Your task to perform on an android device: open app "DoorDash - Food Delivery" (install if not already installed) Image 0: 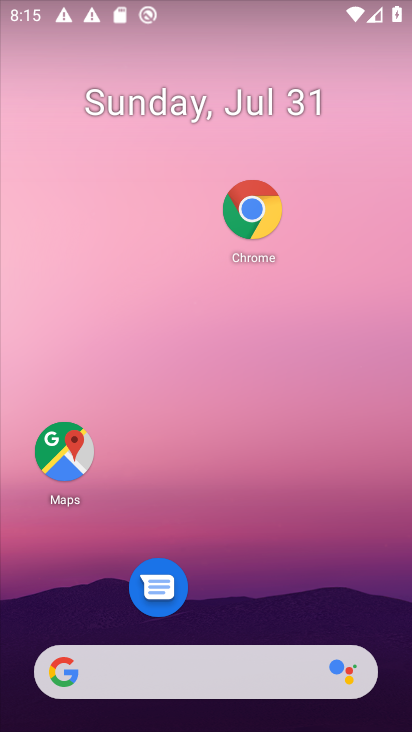
Step 0: drag from (274, 638) to (217, 238)
Your task to perform on an android device: open app "DoorDash - Food Delivery" (install if not already installed) Image 1: 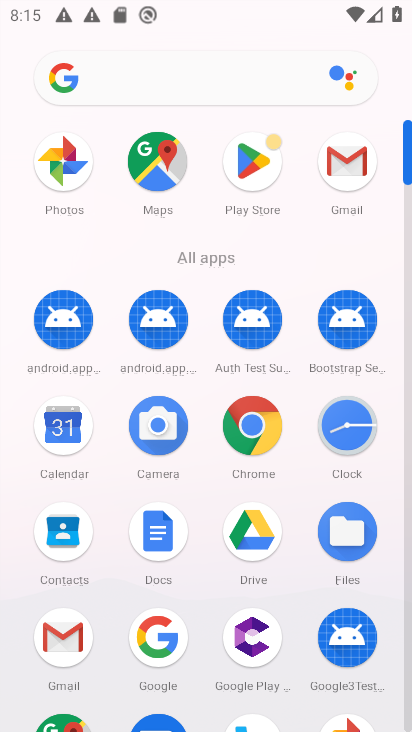
Step 1: drag from (211, 490) to (141, 27)
Your task to perform on an android device: open app "DoorDash - Food Delivery" (install if not already installed) Image 2: 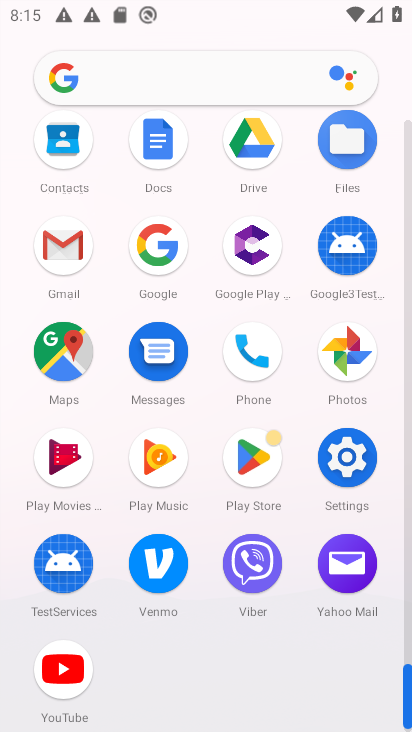
Step 2: click (235, 457)
Your task to perform on an android device: open app "DoorDash - Food Delivery" (install if not already installed) Image 3: 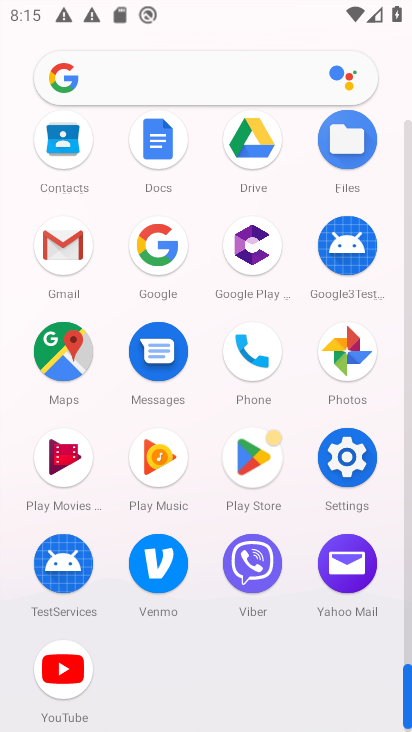
Step 3: click (246, 453)
Your task to perform on an android device: open app "DoorDash - Food Delivery" (install if not already installed) Image 4: 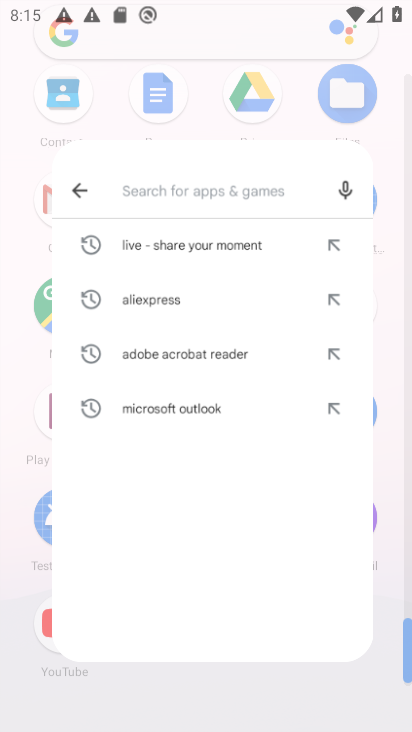
Step 4: click (246, 453)
Your task to perform on an android device: open app "DoorDash - Food Delivery" (install if not already installed) Image 5: 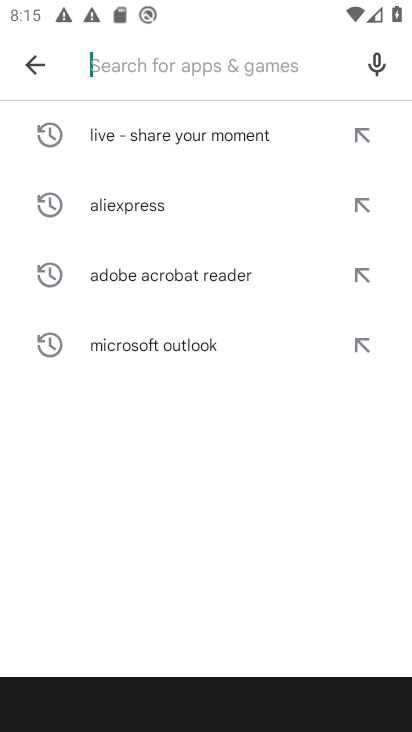
Step 5: click (259, 452)
Your task to perform on an android device: open app "DoorDash - Food Delivery" (install if not already installed) Image 6: 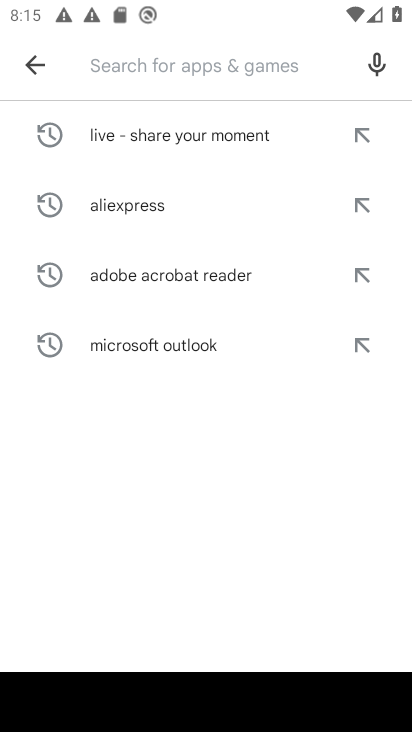
Step 6: type "Doordash -food delivery"
Your task to perform on an android device: open app "DoorDash - Food Delivery" (install if not already installed) Image 7: 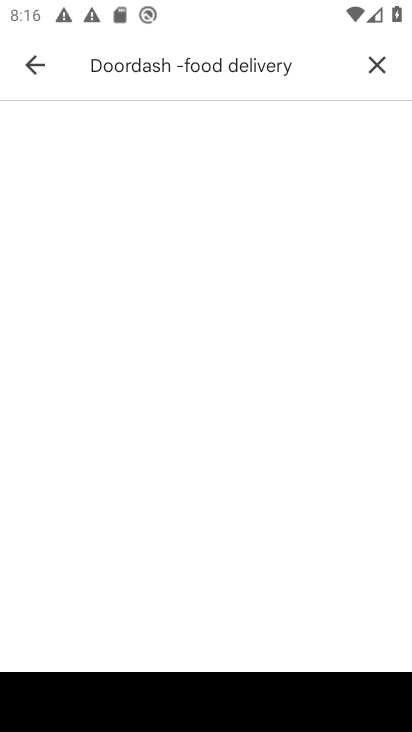
Step 7: click (291, 57)
Your task to perform on an android device: open app "DoorDash - Food Delivery" (install if not already installed) Image 8: 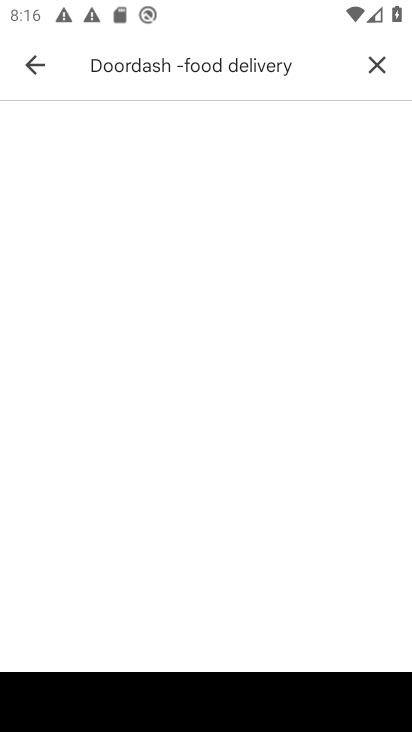
Step 8: click (254, 69)
Your task to perform on an android device: open app "DoorDash - Food Delivery" (install if not already installed) Image 9: 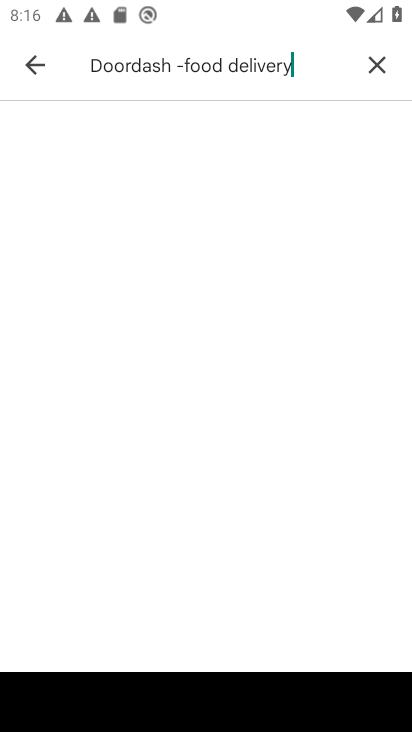
Step 9: click (269, 69)
Your task to perform on an android device: open app "DoorDash - Food Delivery" (install if not already installed) Image 10: 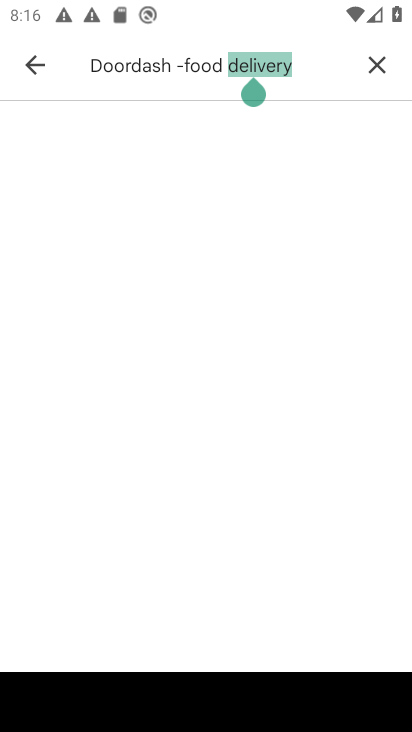
Step 10: click (270, 69)
Your task to perform on an android device: open app "DoorDash - Food Delivery" (install if not already installed) Image 11: 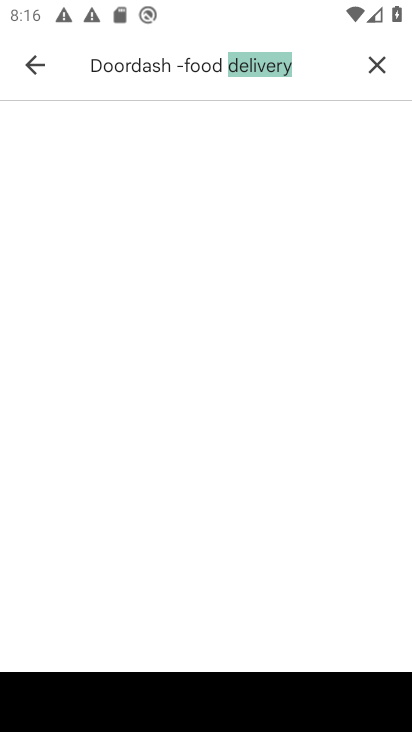
Step 11: click (270, 65)
Your task to perform on an android device: open app "DoorDash - Food Delivery" (install if not already installed) Image 12: 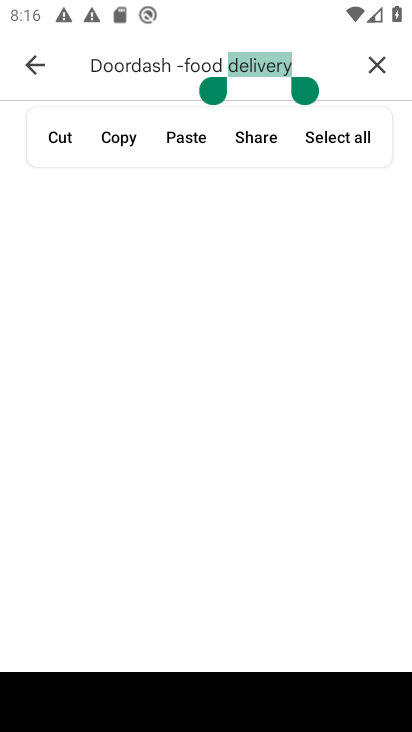
Step 12: click (312, 75)
Your task to perform on an android device: open app "DoorDash - Food Delivery" (install if not already installed) Image 13: 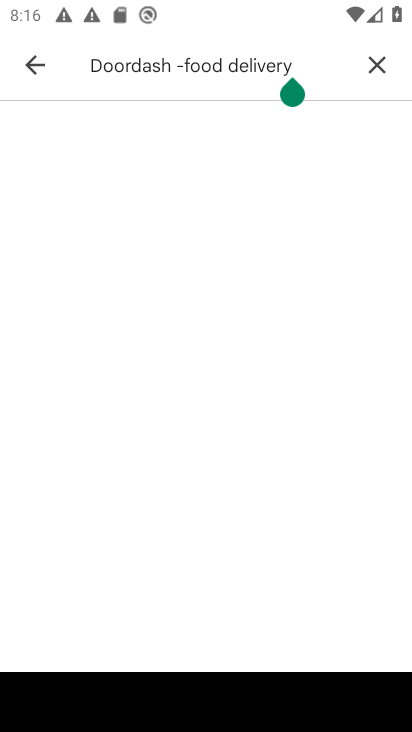
Step 13: click (302, 63)
Your task to perform on an android device: open app "DoorDash - Food Delivery" (install if not already installed) Image 14: 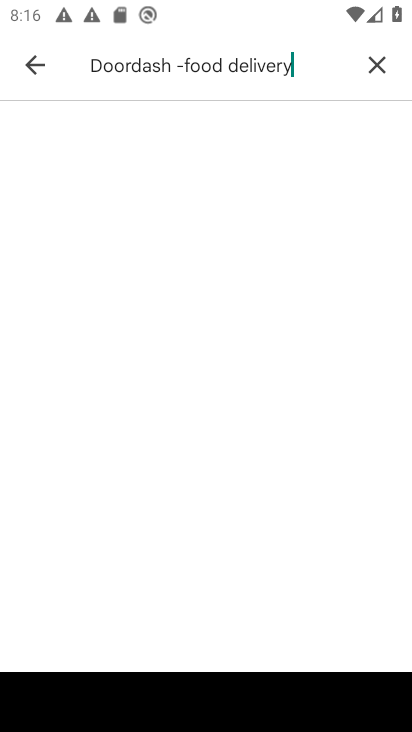
Step 14: type "DoorDash - Food Delivery" "
Your task to perform on an android device: open app "DoorDash - Food Delivery" (install if not already installed) Image 15: 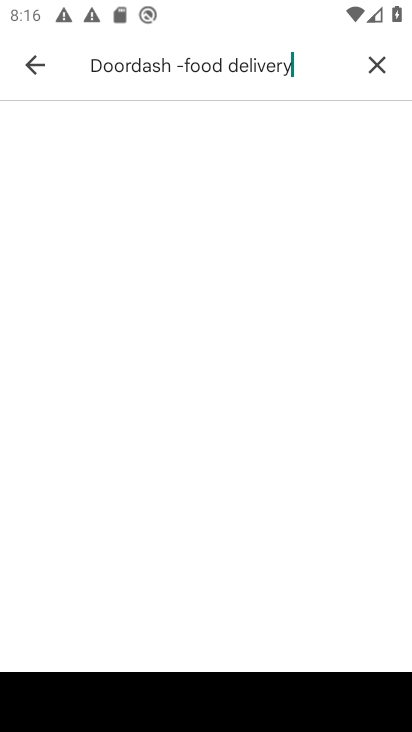
Step 15: click (373, 62)
Your task to perform on an android device: open app "DoorDash - Food Delivery" (install if not already installed) Image 16: 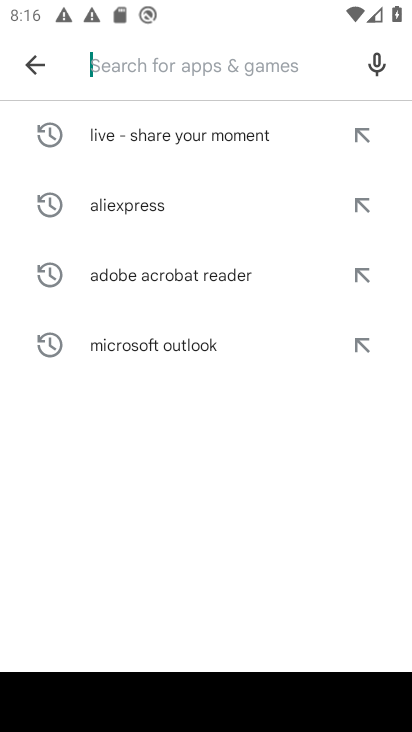
Step 16: type "doordash - food deliv ery"
Your task to perform on an android device: open app "DoorDash - Food Delivery" (install if not already installed) Image 17: 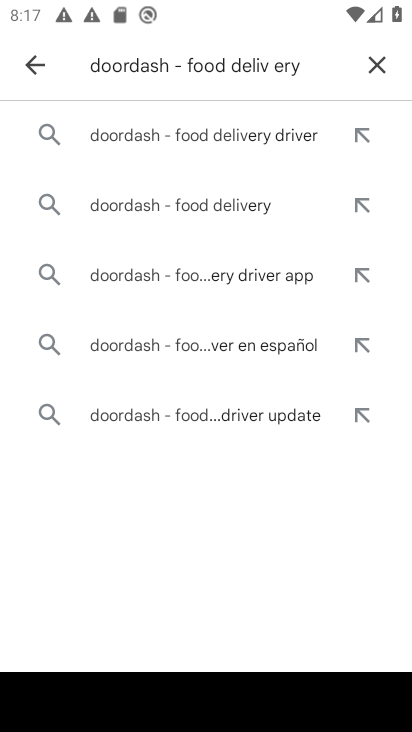
Step 17: click (261, 137)
Your task to perform on an android device: open app "DoorDash - Food Delivery" (install if not already installed) Image 18: 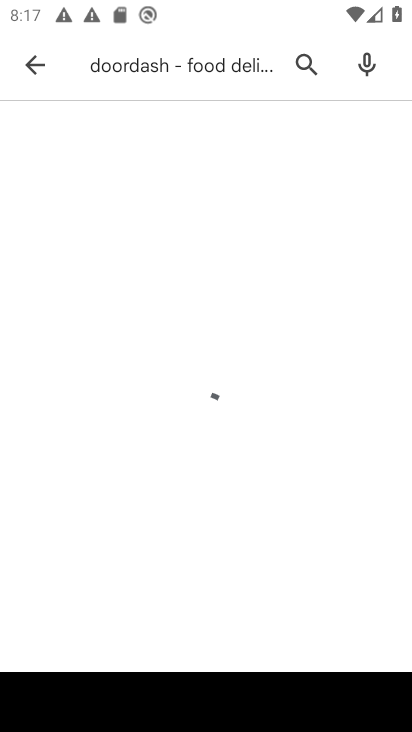
Step 18: click (260, 136)
Your task to perform on an android device: open app "DoorDash - Food Delivery" (install if not already installed) Image 19: 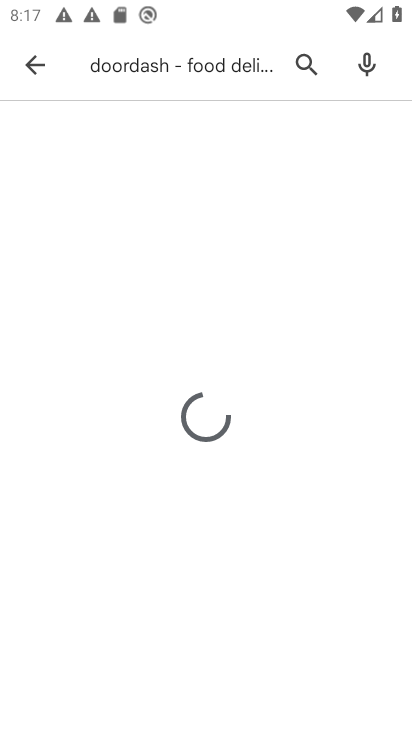
Step 19: click (266, 147)
Your task to perform on an android device: open app "DoorDash - Food Delivery" (install if not already installed) Image 20: 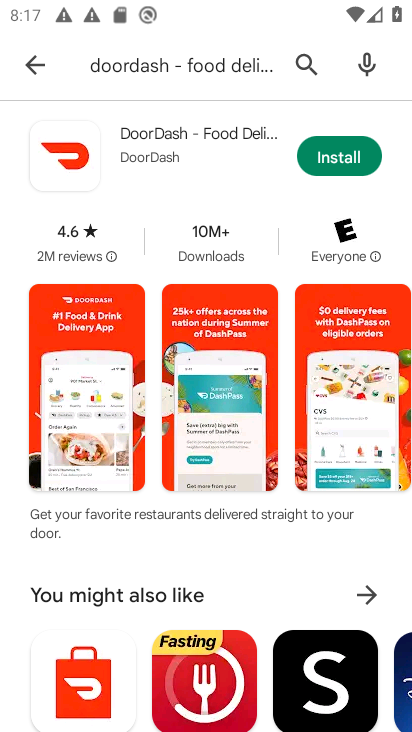
Step 20: click (326, 165)
Your task to perform on an android device: open app "DoorDash - Food Delivery" (install if not already installed) Image 21: 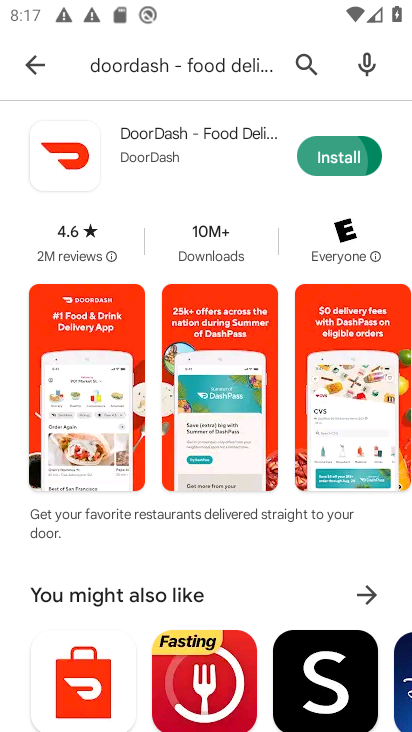
Step 21: click (332, 164)
Your task to perform on an android device: open app "DoorDash - Food Delivery" (install if not already installed) Image 22: 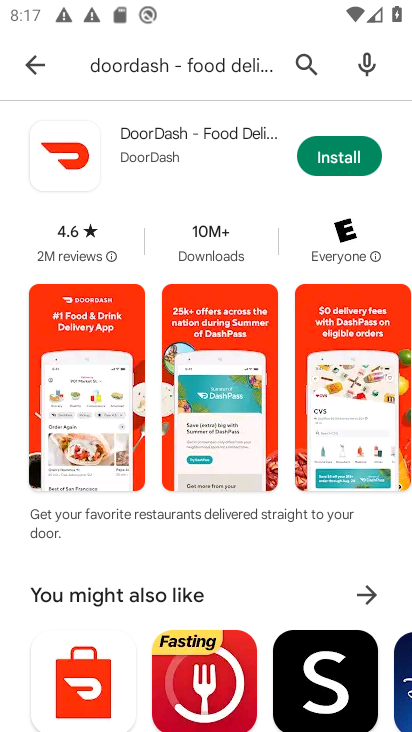
Step 22: task complete